Your task to perform on an android device: Open privacy settings Image 0: 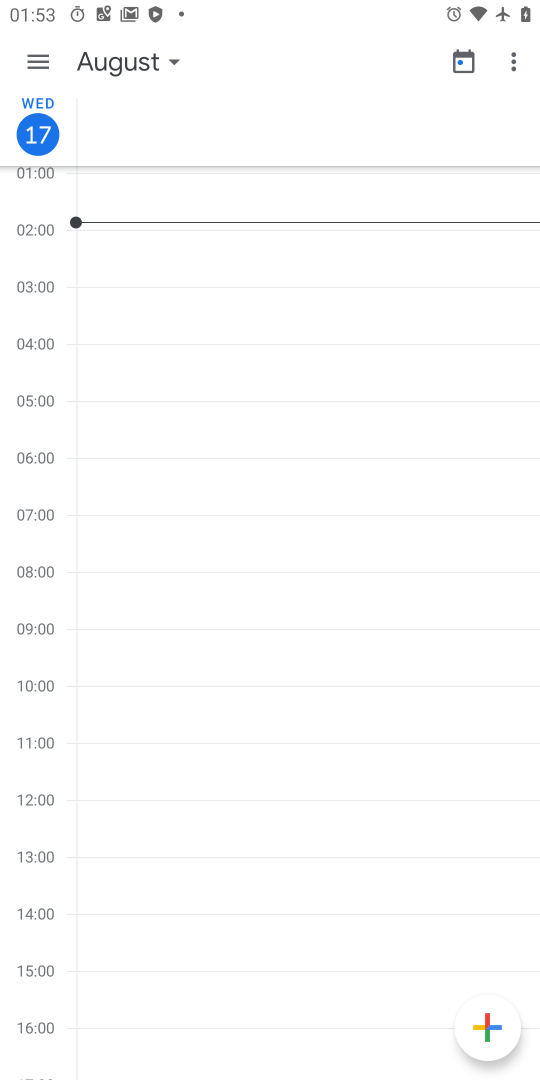
Step 0: press home button
Your task to perform on an android device: Open privacy settings Image 1: 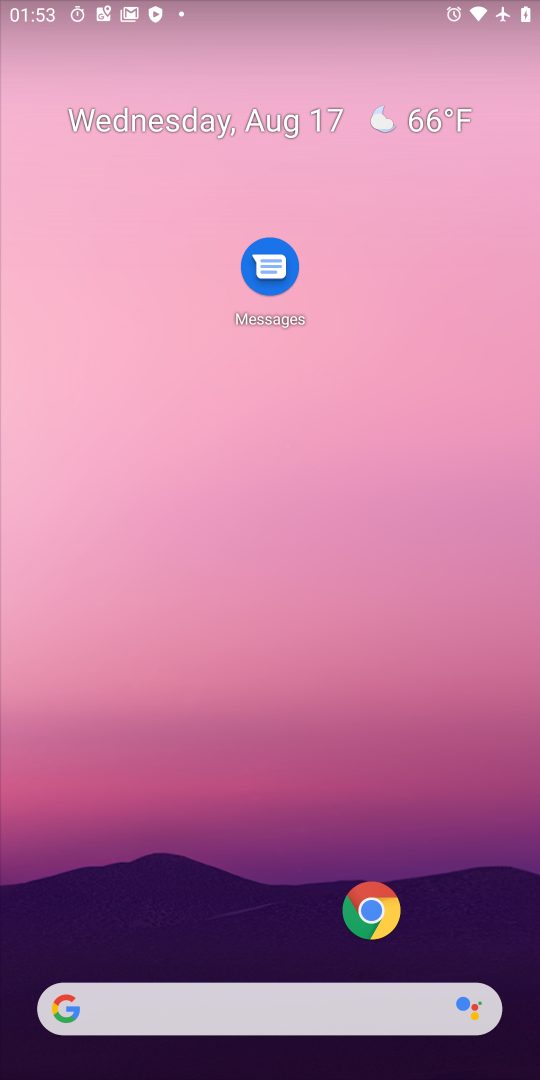
Step 1: drag from (216, 878) to (204, 18)
Your task to perform on an android device: Open privacy settings Image 2: 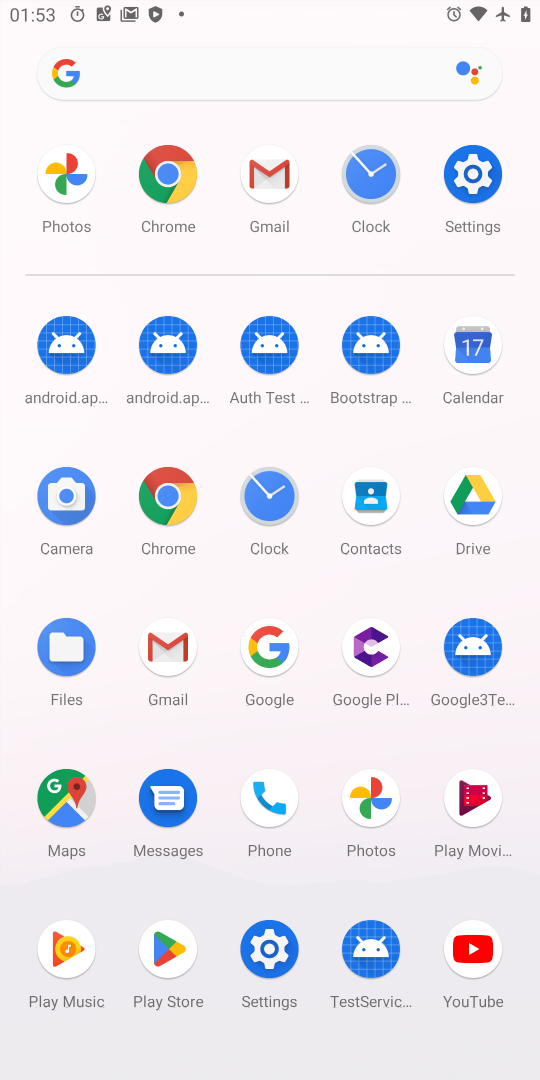
Step 2: click (255, 947)
Your task to perform on an android device: Open privacy settings Image 3: 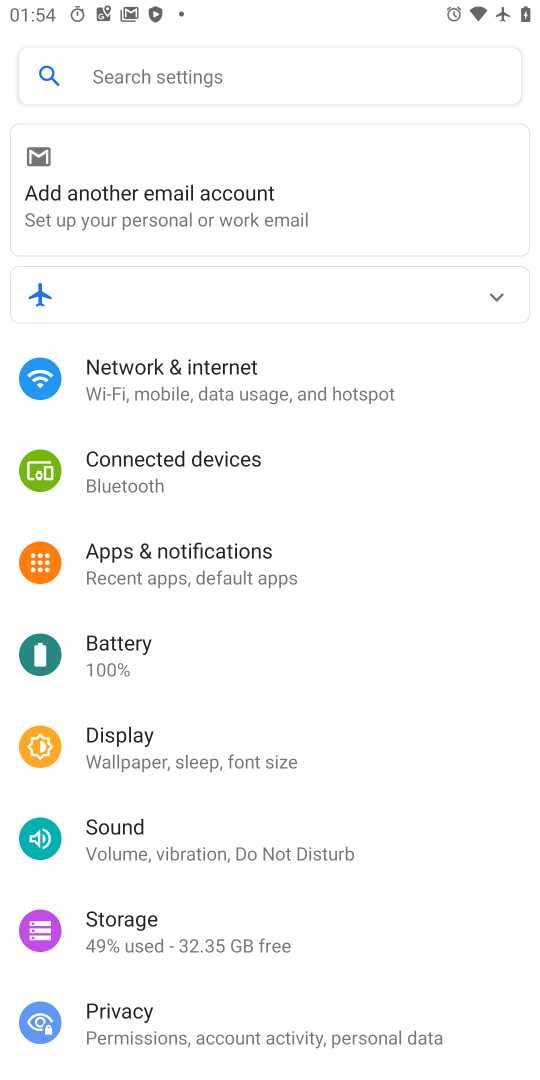
Step 3: click (125, 1033)
Your task to perform on an android device: Open privacy settings Image 4: 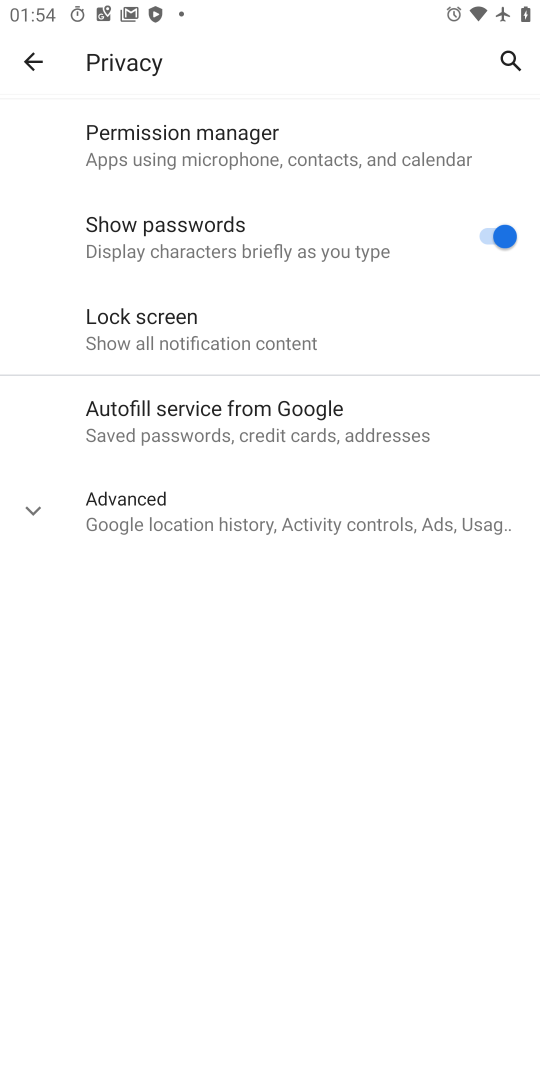
Step 4: task complete